Your task to perform on an android device: Open the calculator Image 0: 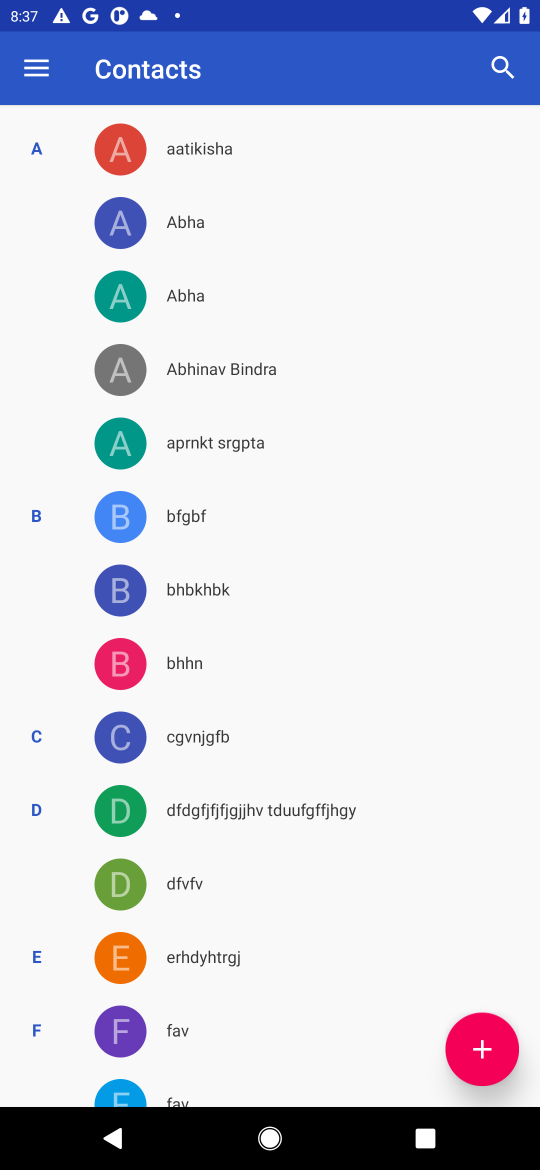
Step 0: press home button
Your task to perform on an android device: Open the calculator Image 1: 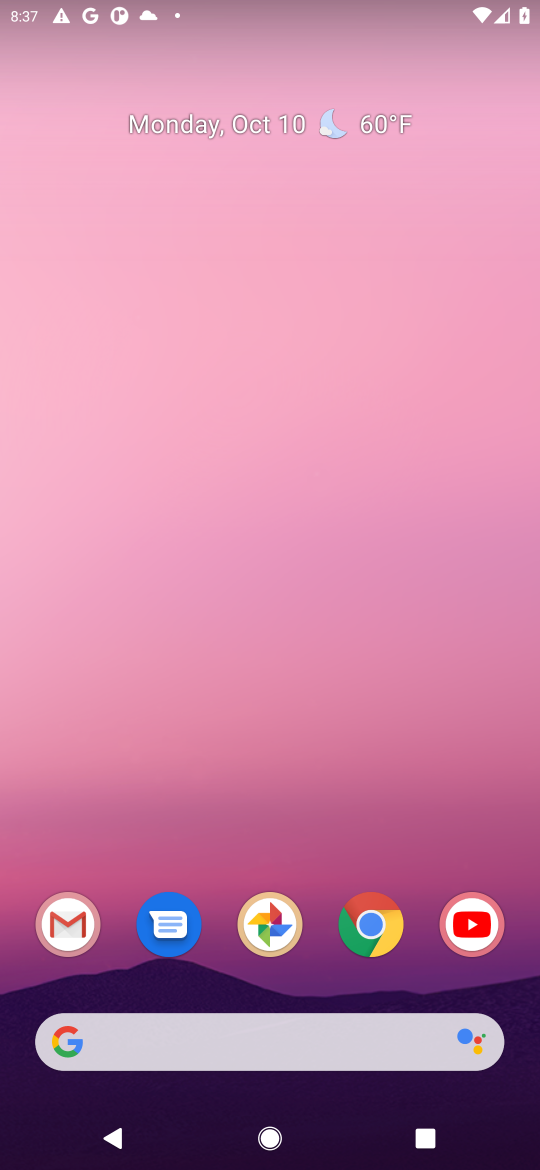
Step 1: task complete